Your task to perform on an android device: all mails in gmail Image 0: 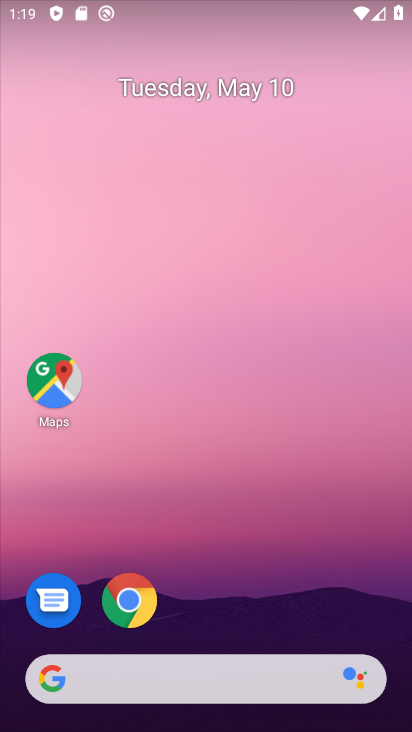
Step 0: drag from (222, 648) to (165, 9)
Your task to perform on an android device: all mails in gmail Image 1: 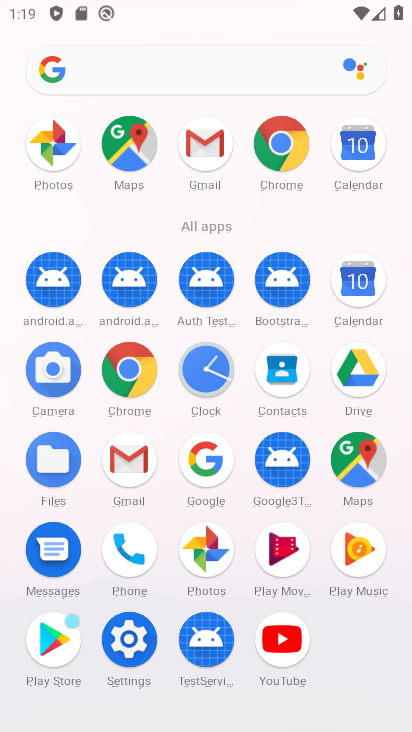
Step 1: click (125, 457)
Your task to perform on an android device: all mails in gmail Image 2: 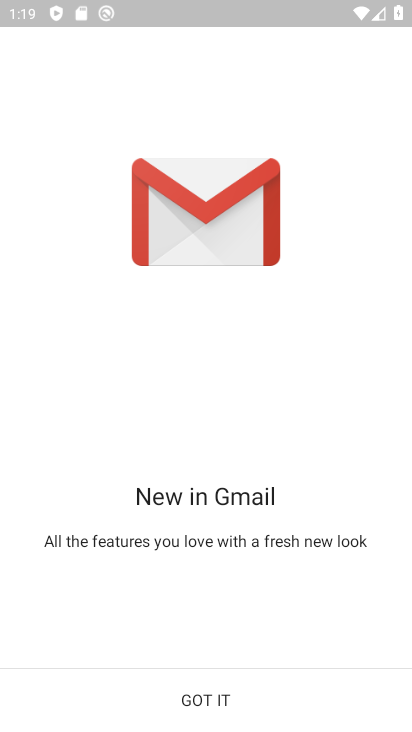
Step 2: click (222, 691)
Your task to perform on an android device: all mails in gmail Image 3: 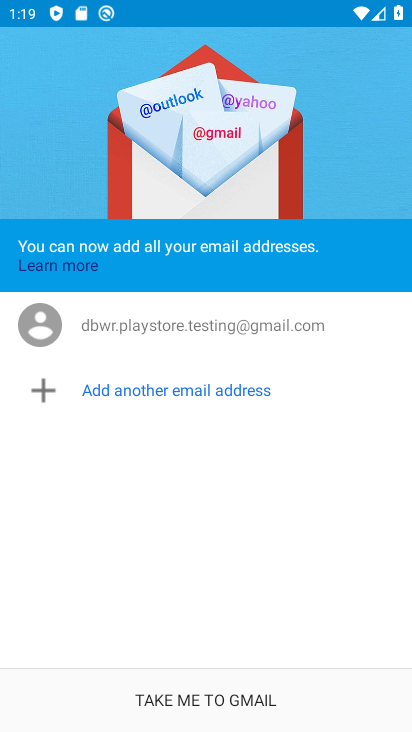
Step 3: click (222, 691)
Your task to perform on an android device: all mails in gmail Image 4: 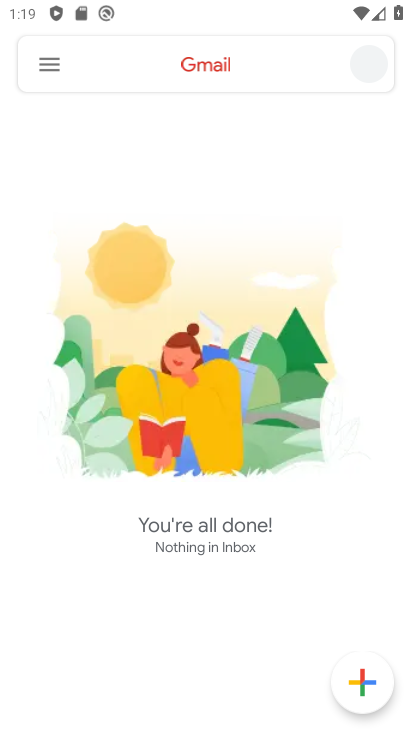
Step 4: click (38, 64)
Your task to perform on an android device: all mails in gmail Image 5: 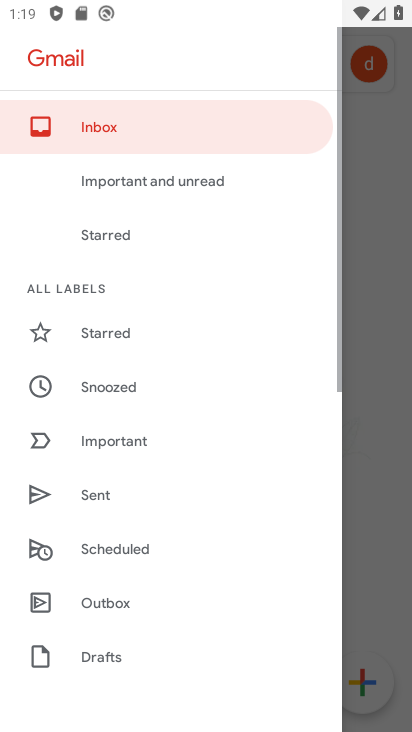
Step 5: drag from (130, 624) to (102, 289)
Your task to perform on an android device: all mails in gmail Image 6: 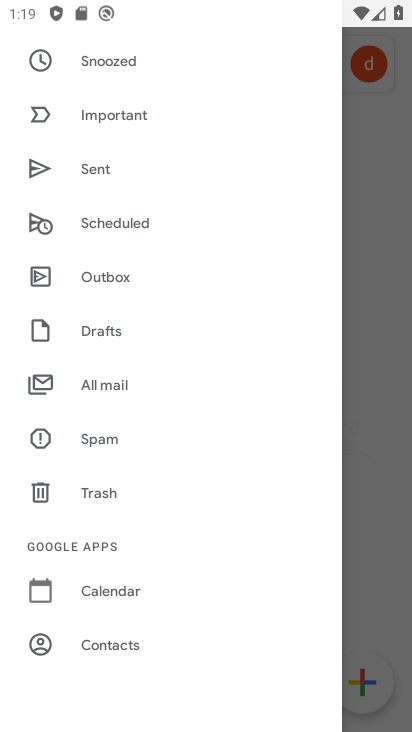
Step 6: click (104, 384)
Your task to perform on an android device: all mails in gmail Image 7: 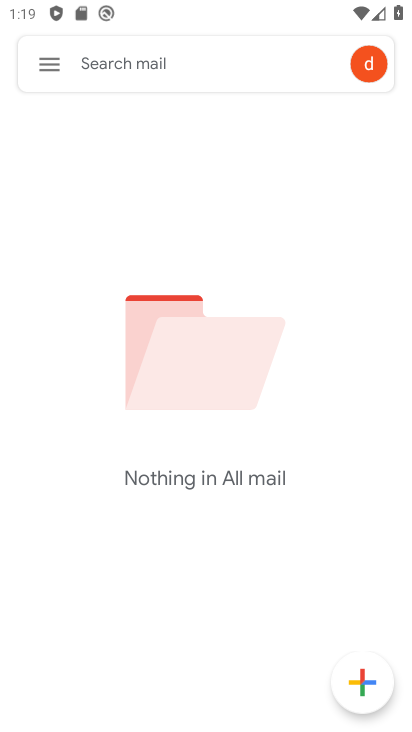
Step 7: task complete